Your task to perform on an android device: turn vacation reply on in the gmail app Image 0: 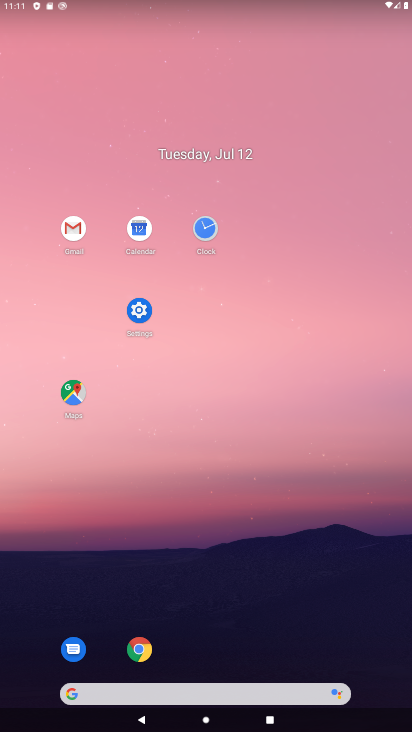
Step 0: click (64, 224)
Your task to perform on an android device: turn vacation reply on in the gmail app Image 1: 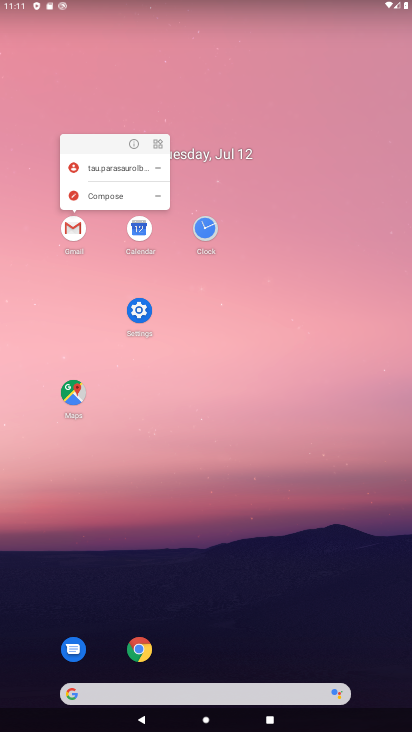
Step 1: click (64, 223)
Your task to perform on an android device: turn vacation reply on in the gmail app Image 2: 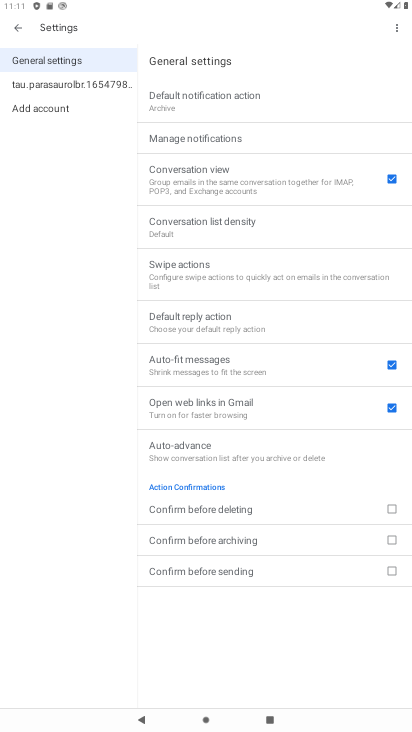
Step 2: drag from (226, 376) to (212, 142)
Your task to perform on an android device: turn vacation reply on in the gmail app Image 3: 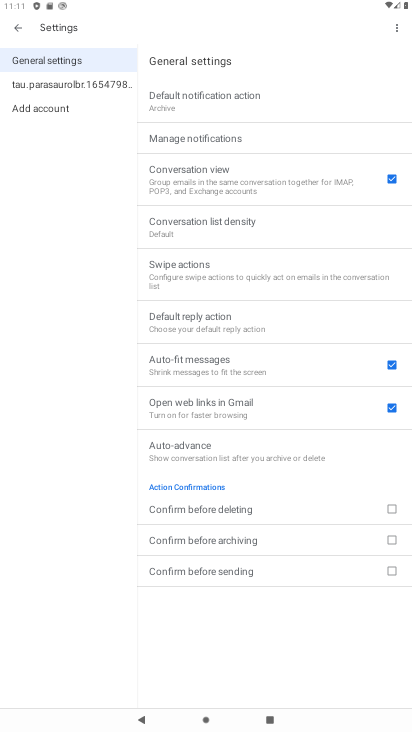
Step 3: click (110, 74)
Your task to perform on an android device: turn vacation reply on in the gmail app Image 4: 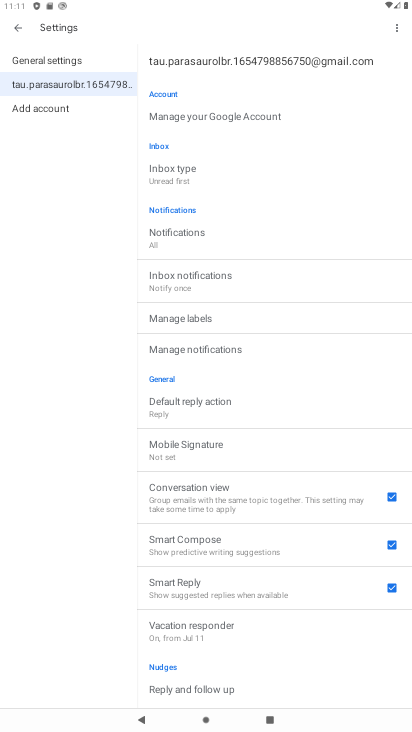
Step 4: click (277, 625)
Your task to perform on an android device: turn vacation reply on in the gmail app Image 5: 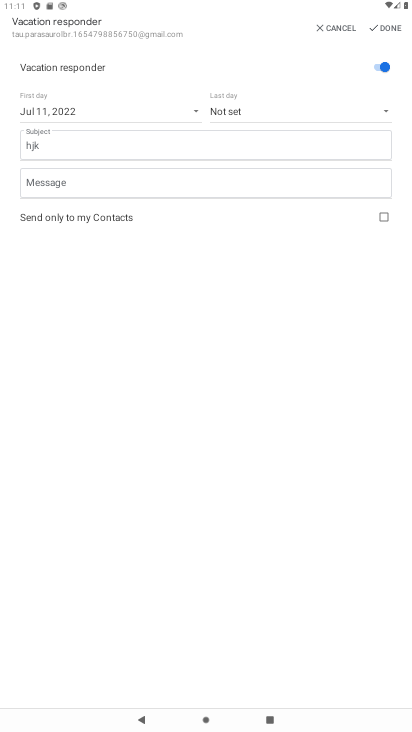
Step 5: task complete